Your task to perform on an android device: Open calendar and show me the first week of next month Image 0: 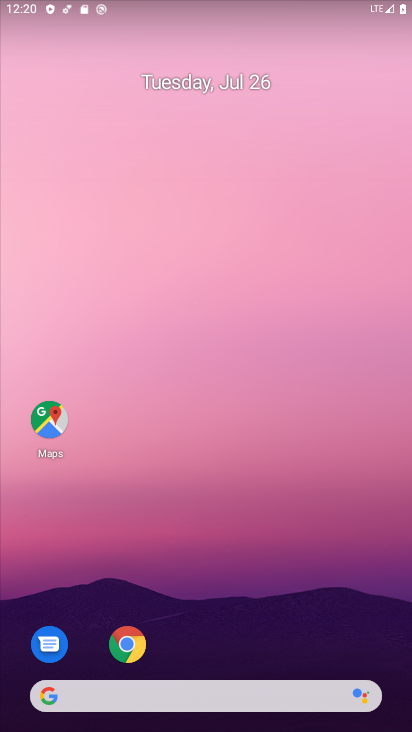
Step 0: drag from (96, 702) to (180, 2)
Your task to perform on an android device: Open calendar and show me the first week of next month Image 1: 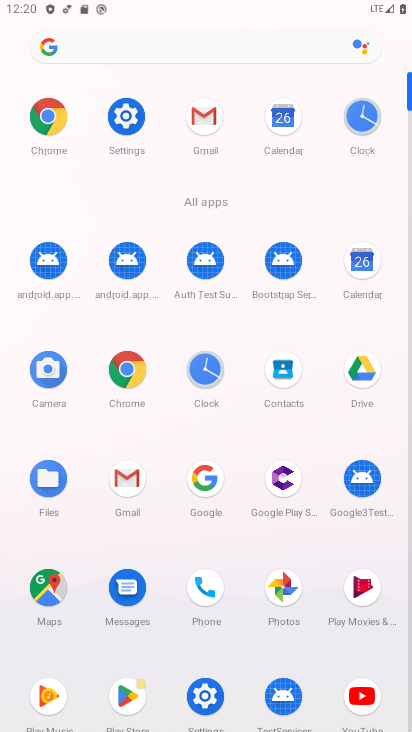
Step 1: click (356, 270)
Your task to perform on an android device: Open calendar and show me the first week of next month Image 2: 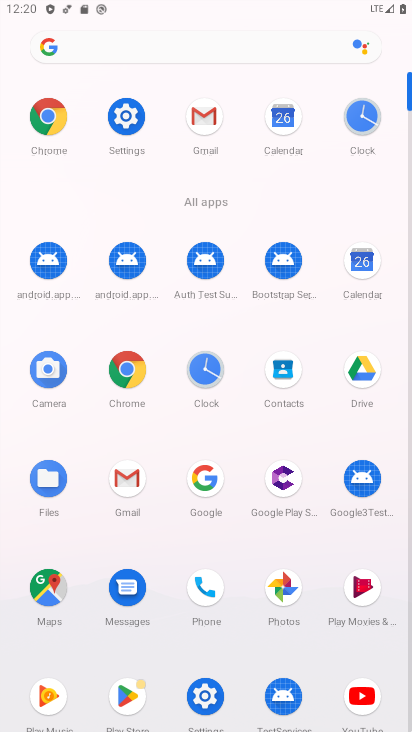
Step 2: click (356, 270)
Your task to perform on an android device: Open calendar and show me the first week of next month Image 3: 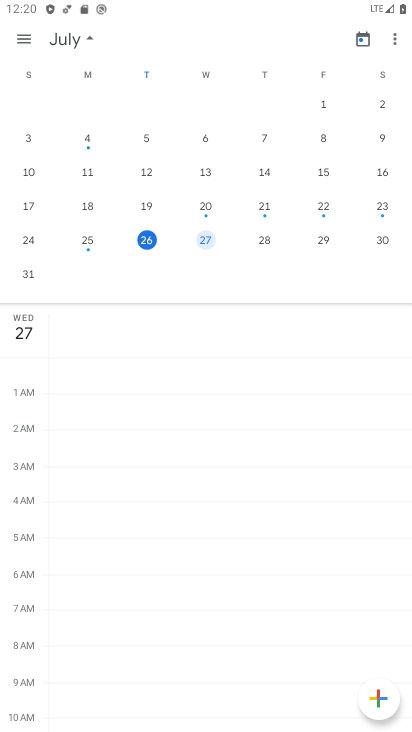
Step 3: task complete